Your task to perform on an android device: Open CNN.com Image 0: 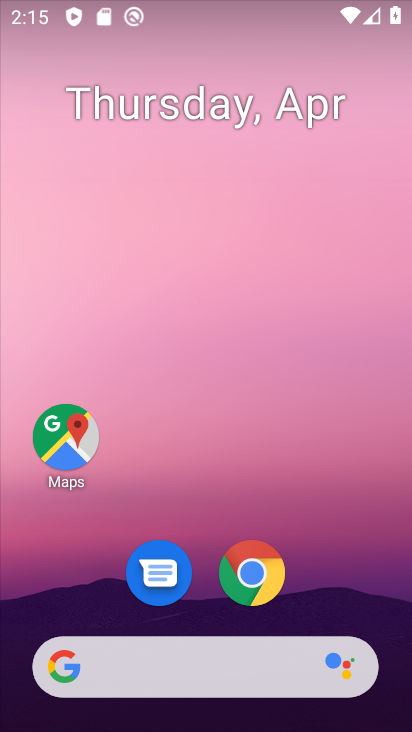
Step 0: click (261, 566)
Your task to perform on an android device: Open CNN.com Image 1: 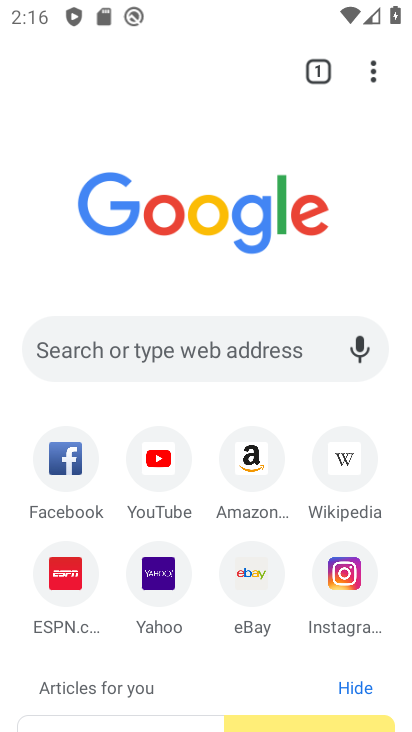
Step 1: click (170, 340)
Your task to perform on an android device: Open CNN.com Image 2: 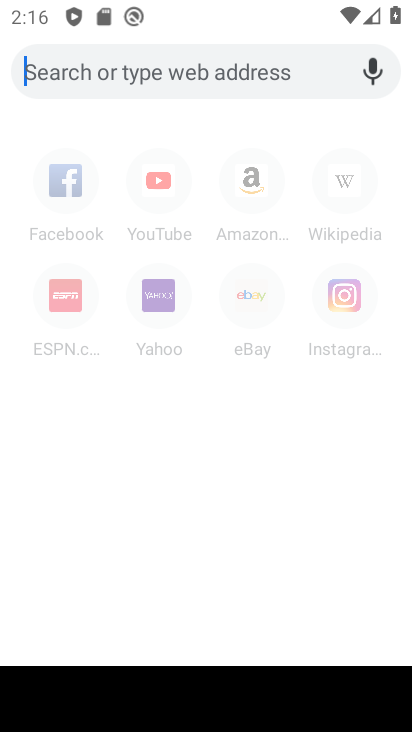
Step 2: type "cnn.com"
Your task to perform on an android device: Open CNN.com Image 3: 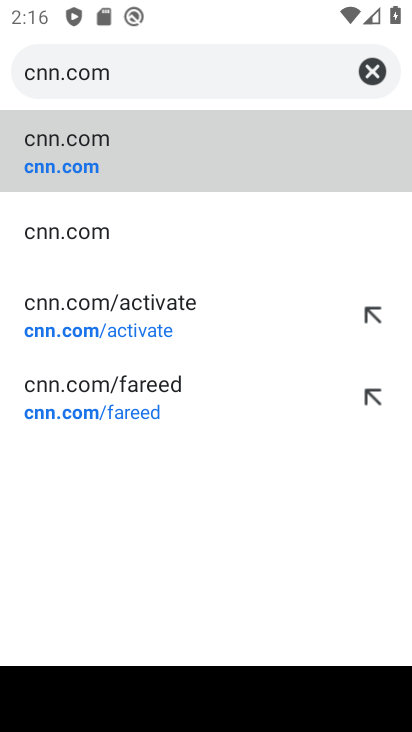
Step 3: click (264, 139)
Your task to perform on an android device: Open CNN.com Image 4: 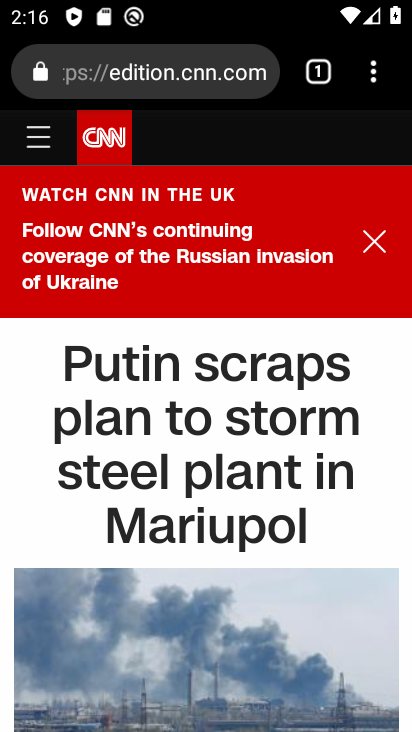
Step 4: task complete